Your task to perform on an android device: Open the calendar app, open the side menu, and click the "Day" option Image 0: 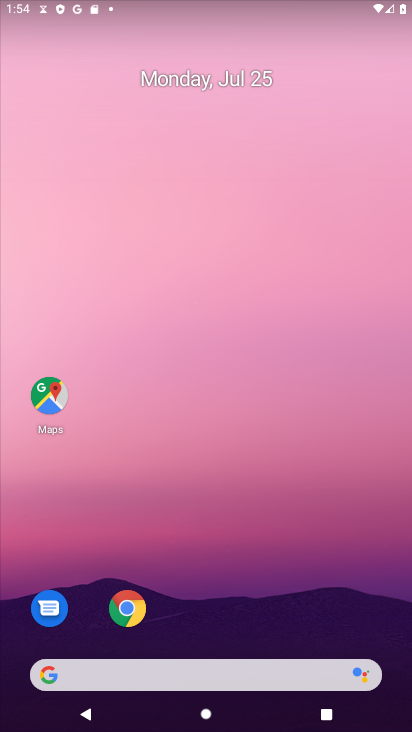
Step 0: drag from (206, 676) to (286, 196)
Your task to perform on an android device: Open the calendar app, open the side menu, and click the "Day" option Image 1: 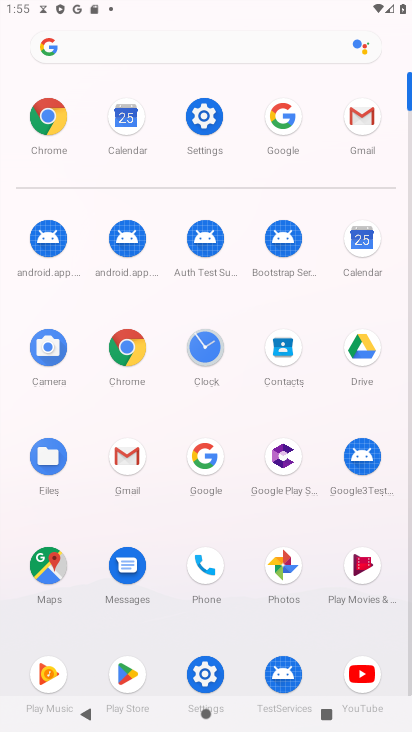
Step 1: click (361, 238)
Your task to perform on an android device: Open the calendar app, open the side menu, and click the "Day" option Image 2: 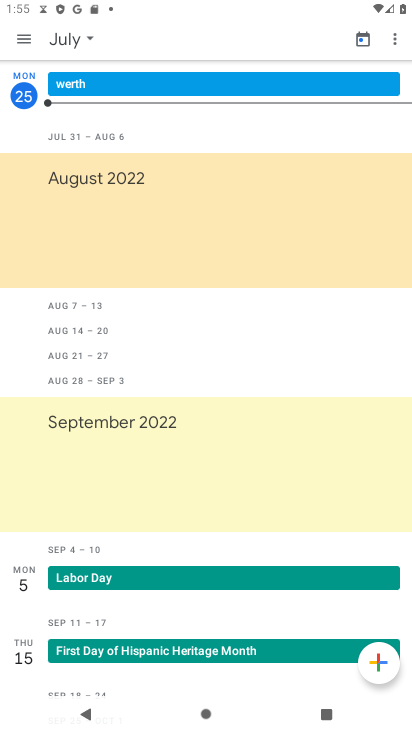
Step 2: click (363, 40)
Your task to perform on an android device: Open the calendar app, open the side menu, and click the "Day" option Image 3: 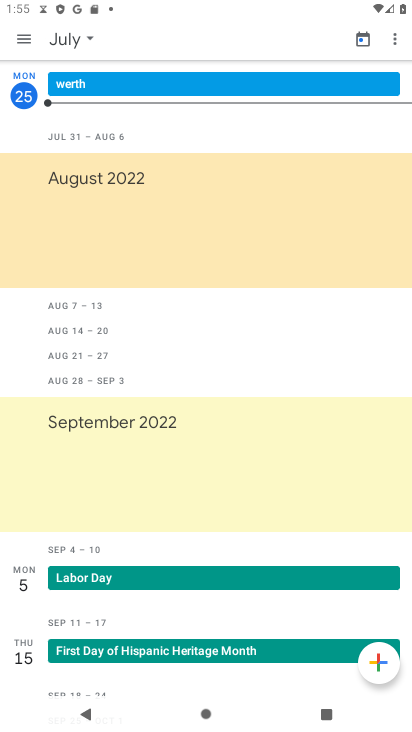
Step 3: click (89, 35)
Your task to perform on an android device: Open the calendar app, open the side menu, and click the "Day" option Image 4: 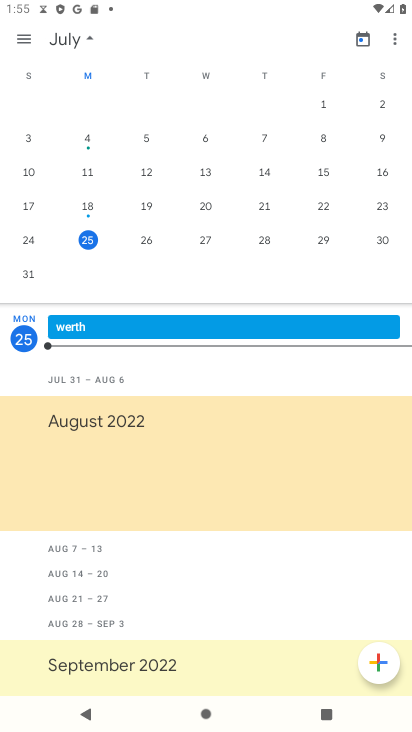
Step 4: click (24, 33)
Your task to perform on an android device: Open the calendar app, open the side menu, and click the "Day" option Image 5: 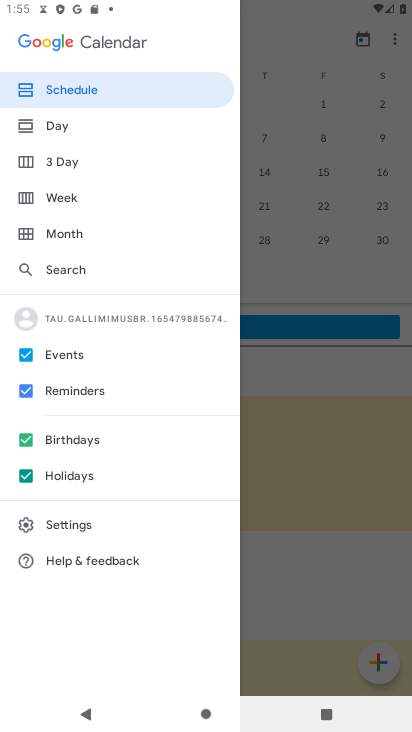
Step 5: click (60, 128)
Your task to perform on an android device: Open the calendar app, open the side menu, and click the "Day" option Image 6: 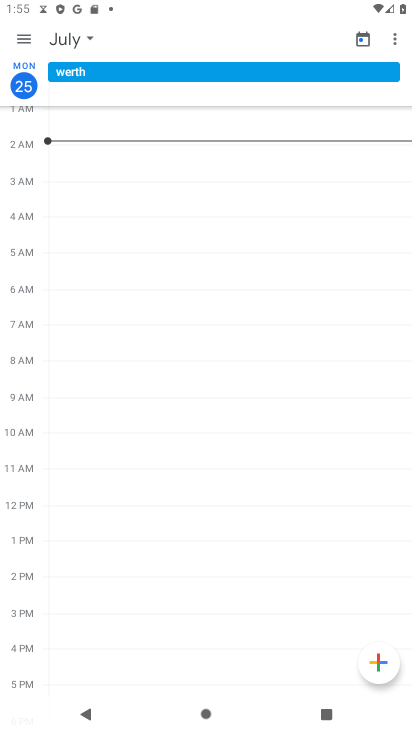
Step 6: task complete